Your task to perform on an android device: empty trash in the gmail app Image 0: 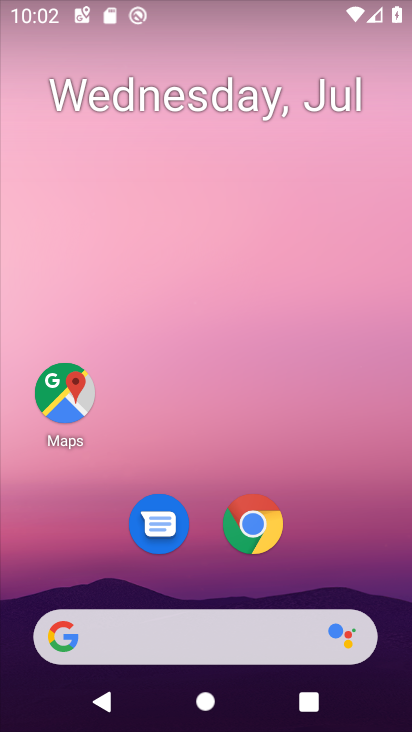
Step 0: drag from (330, 543) to (284, 60)
Your task to perform on an android device: empty trash in the gmail app Image 1: 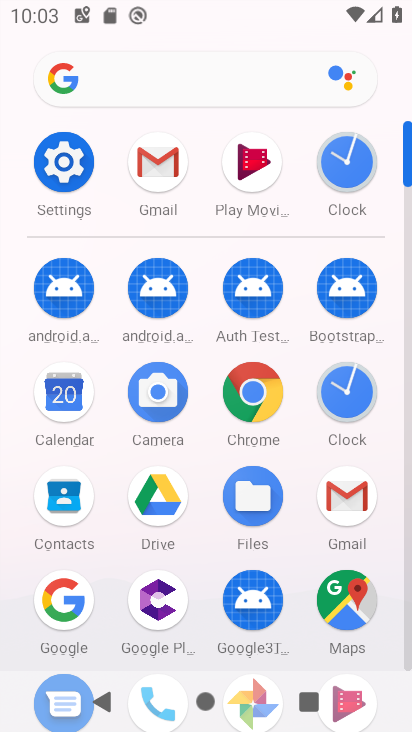
Step 1: click (165, 165)
Your task to perform on an android device: empty trash in the gmail app Image 2: 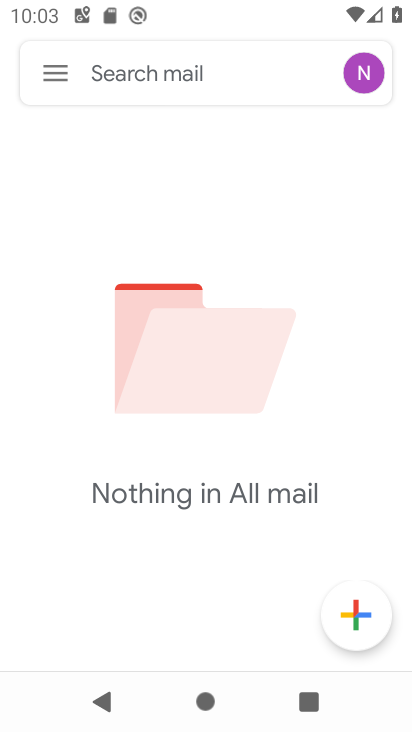
Step 2: click (61, 74)
Your task to perform on an android device: empty trash in the gmail app Image 3: 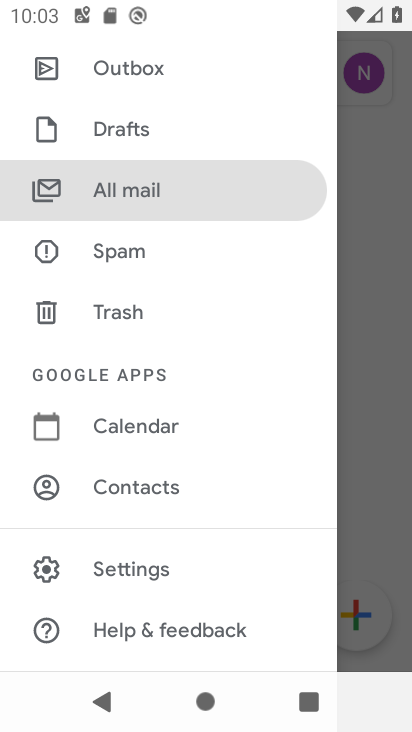
Step 3: click (136, 301)
Your task to perform on an android device: empty trash in the gmail app Image 4: 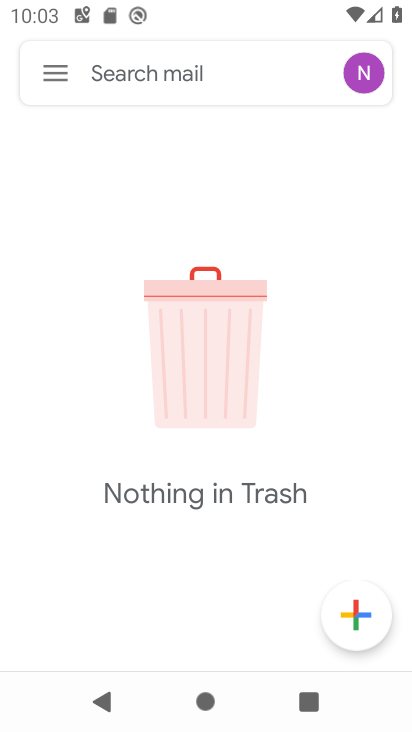
Step 4: task complete